Your task to perform on an android device: turn off location Image 0: 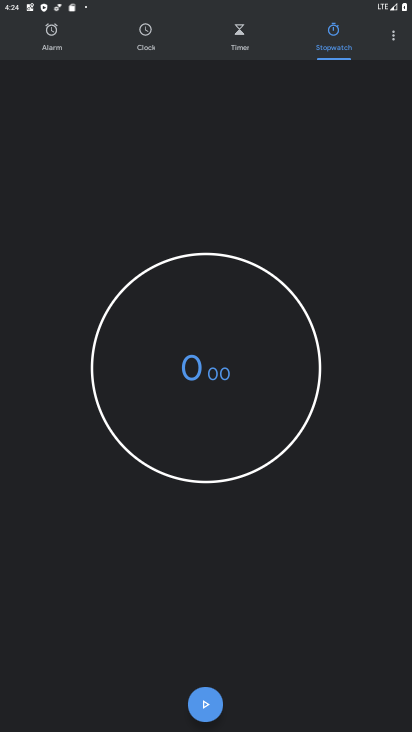
Step 0: press home button
Your task to perform on an android device: turn off location Image 1: 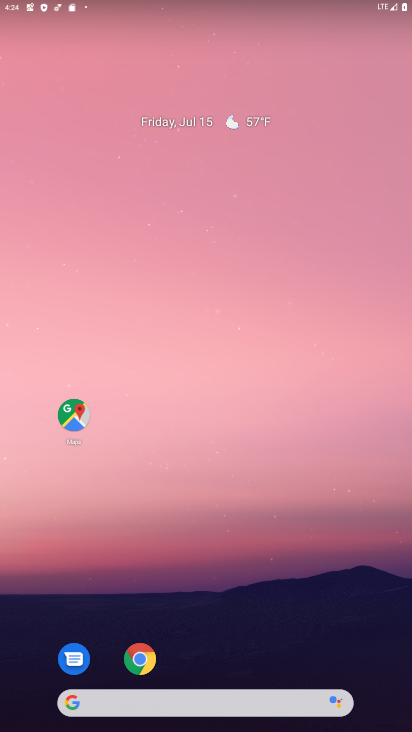
Step 1: drag from (222, 648) to (151, 161)
Your task to perform on an android device: turn off location Image 2: 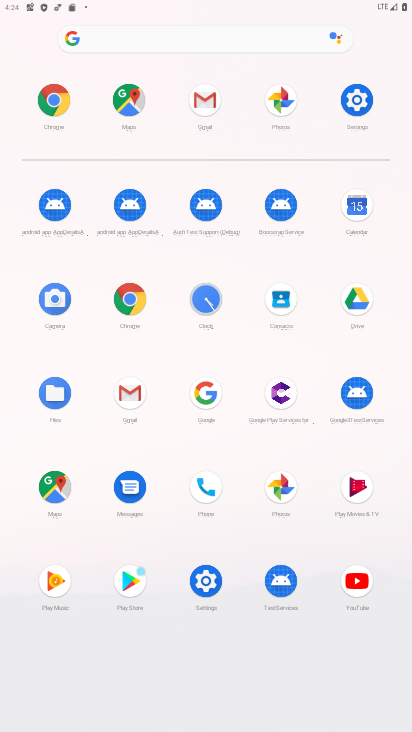
Step 2: click (360, 89)
Your task to perform on an android device: turn off location Image 3: 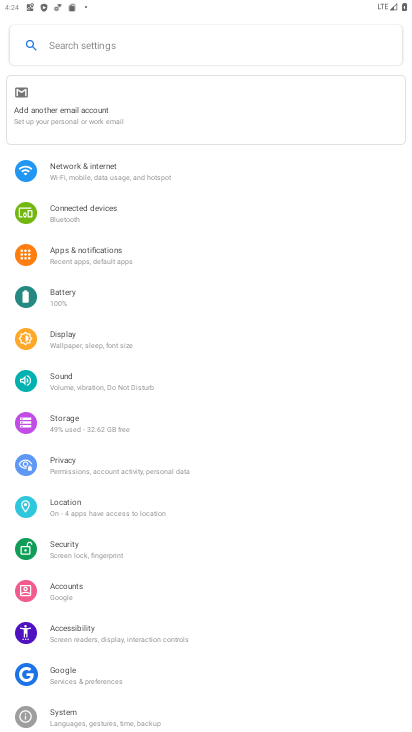
Step 3: click (103, 516)
Your task to perform on an android device: turn off location Image 4: 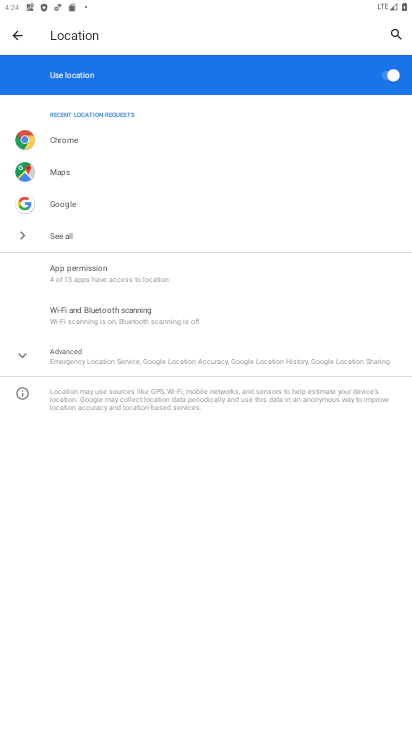
Step 4: click (394, 67)
Your task to perform on an android device: turn off location Image 5: 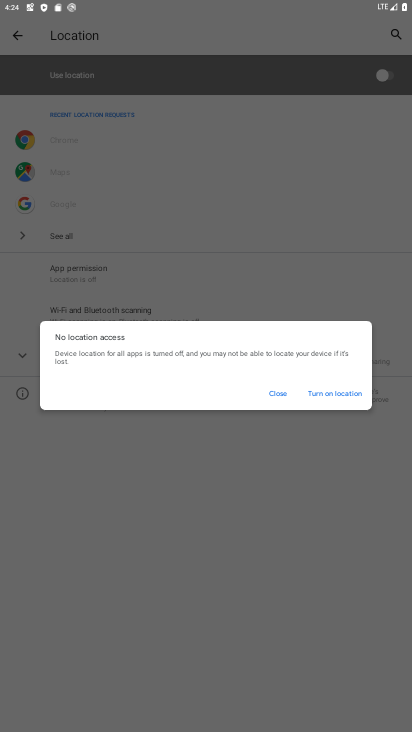
Step 5: click (277, 390)
Your task to perform on an android device: turn off location Image 6: 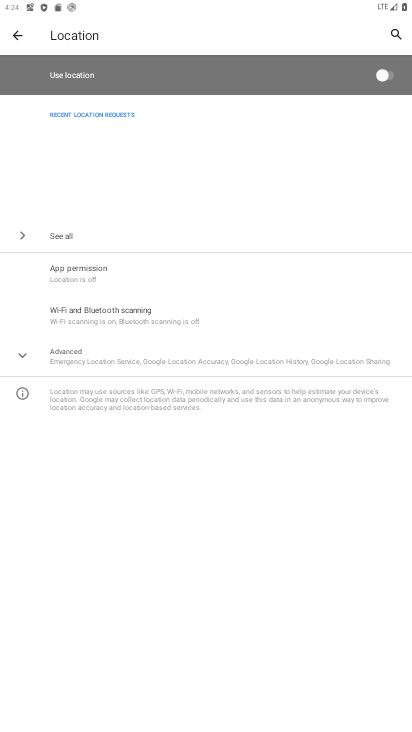
Step 6: task complete